Your task to perform on an android device: set the stopwatch Image 0: 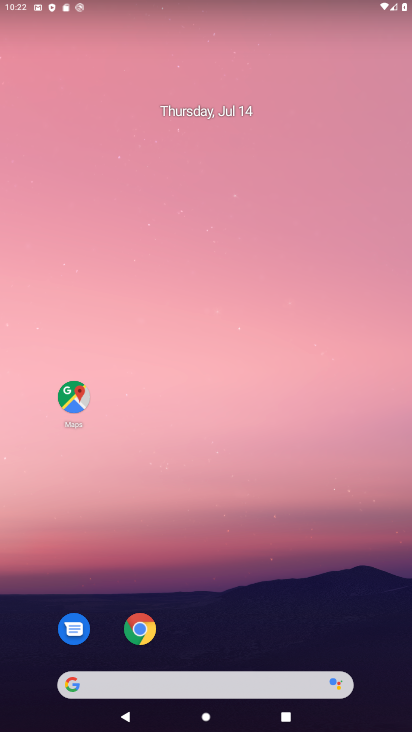
Step 0: drag from (259, 619) to (291, 191)
Your task to perform on an android device: set the stopwatch Image 1: 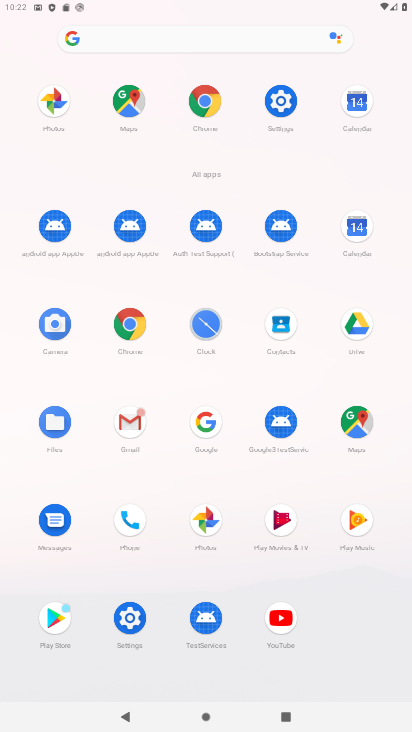
Step 1: click (208, 323)
Your task to perform on an android device: set the stopwatch Image 2: 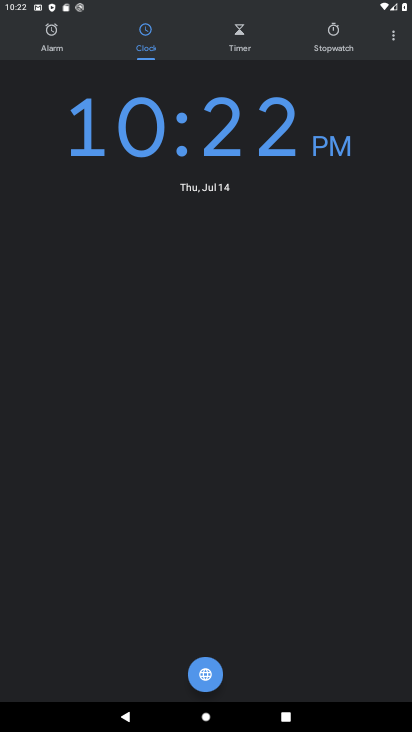
Step 2: click (323, 50)
Your task to perform on an android device: set the stopwatch Image 3: 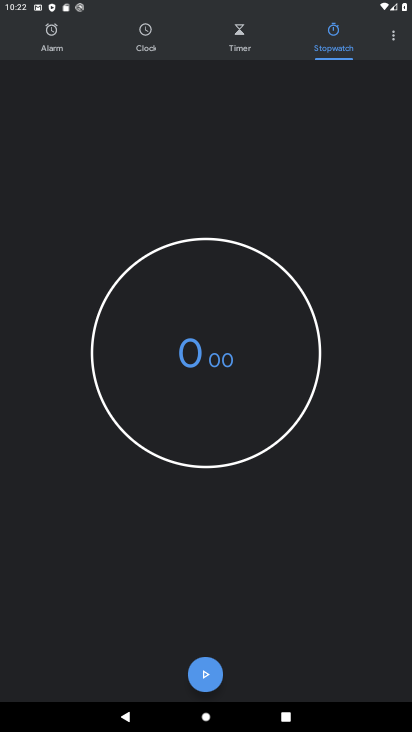
Step 3: click (203, 673)
Your task to perform on an android device: set the stopwatch Image 4: 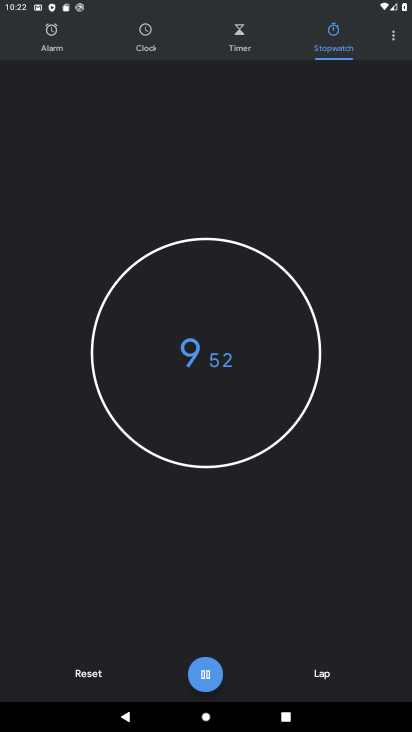
Step 4: task complete